Your task to perform on an android device: turn off notifications settings in the gmail app Image 0: 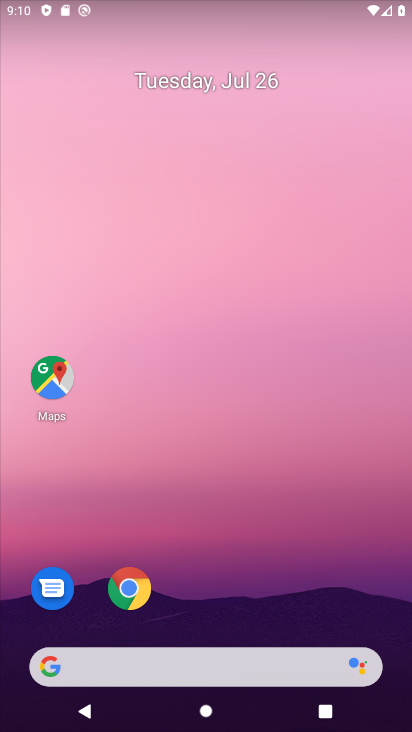
Step 0: drag from (208, 640) to (248, 160)
Your task to perform on an android device: turn off notifications settings in the gmail app Image 1: 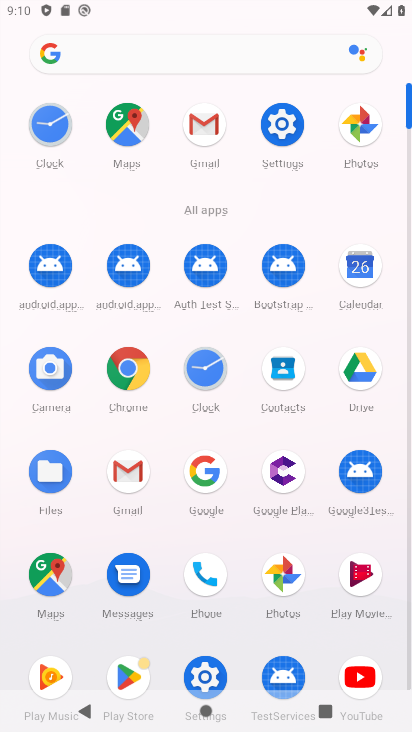
Step 1: click (215, 123)
Your task to perform on an android device: turn off notifications settings in the gmail app Image 2: 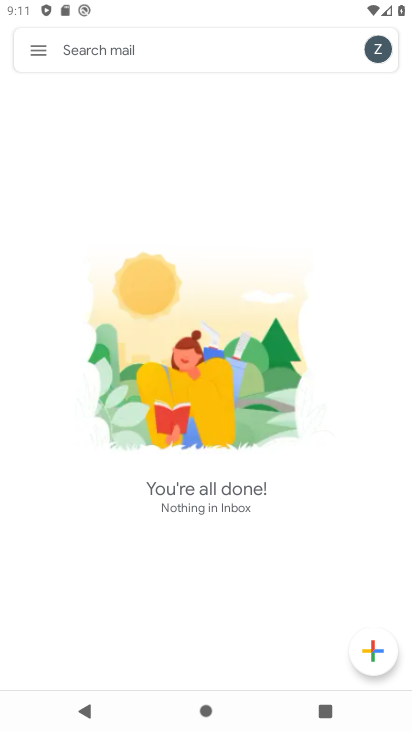
Step 2: click (36, 44)
Your task to perform on an android device: turn off notifications settings in the gmail app Image 3: 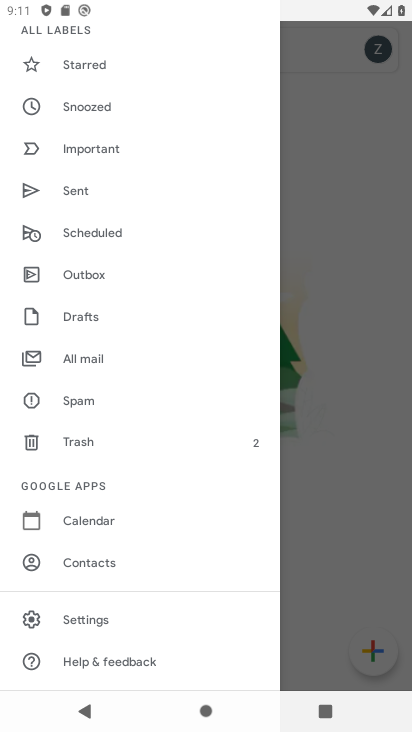
Step 3: click (78, 618)
Your task to perform on an android device: turn off notifications settings in the gmail app Image 4: 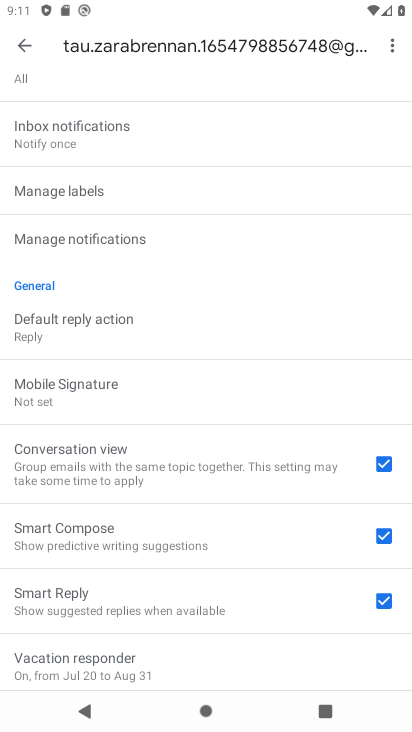
Step 4: click (96, 245)
Your task to perform on an android device: turn off notifications settings in the gmail app Image 5: 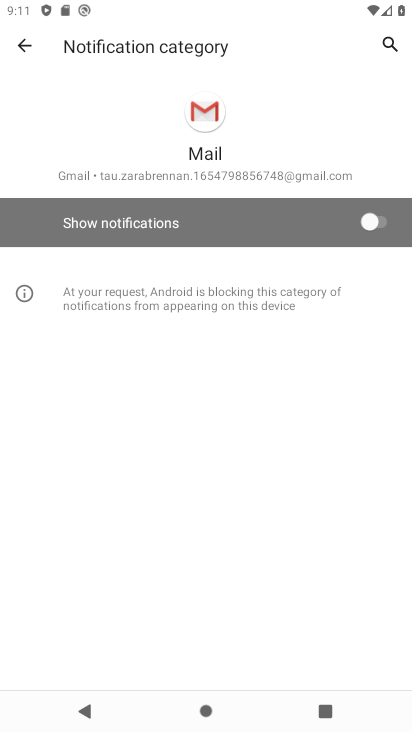
Step 5: task complete